Your task to perform on an android device: show emergency info Image 0: 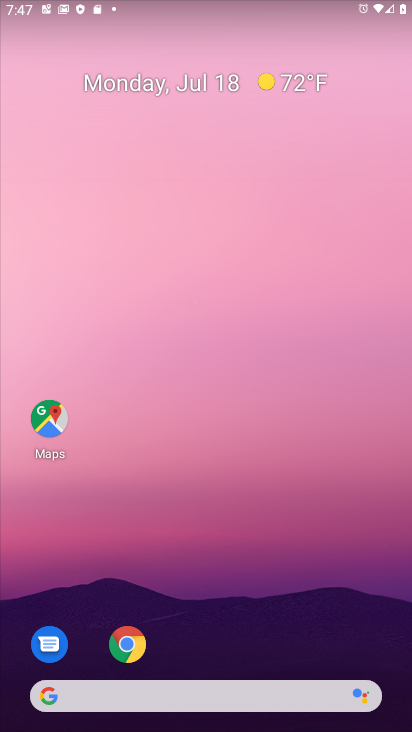
Step 0: drag from (398, 640) to (286, 78)
Your task to perform on an android device: show emergency info Image 1: 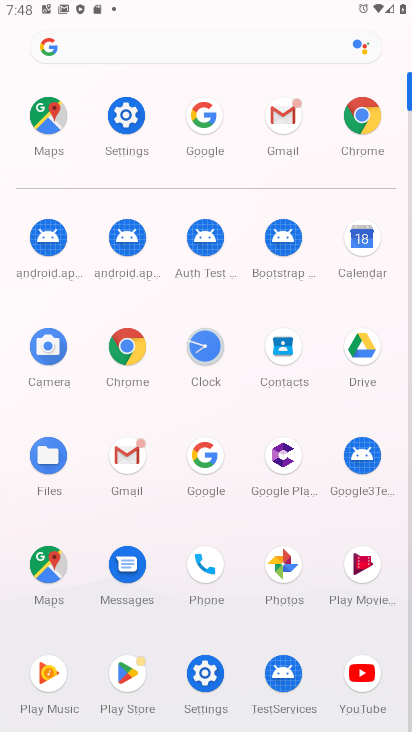
Step 1: click (206, 686)
Your task to perform on an android device: show emergency info Image 2: 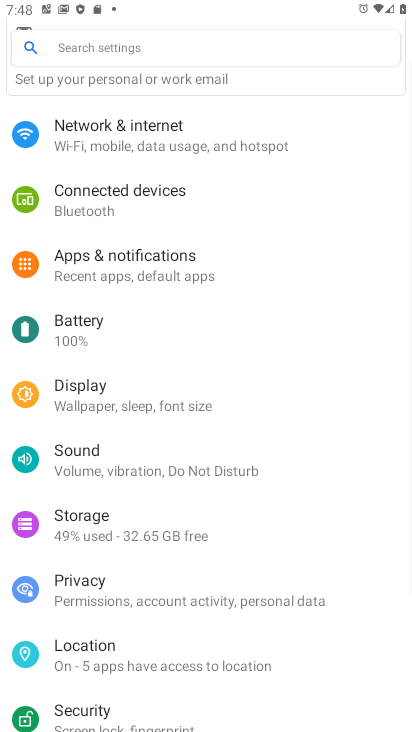
Step 2: drag from (177, 685) to (102, 51)
Your task to perform on an android device: show emergency info Image 3: 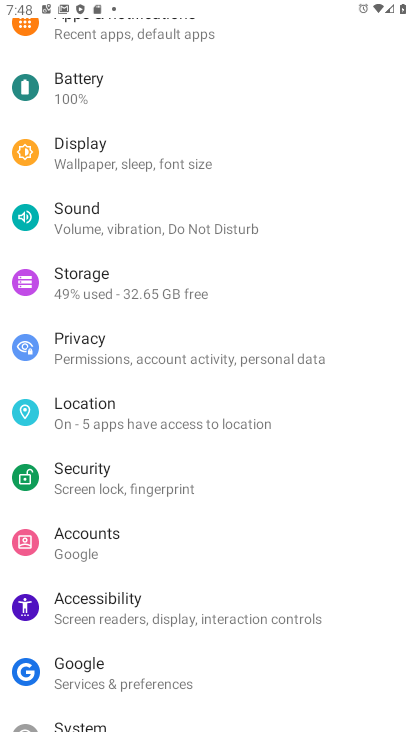
Step 3: drag from (110, 683) to (226, 15)
Your task to perform on an android device: show emergency info Image 4: 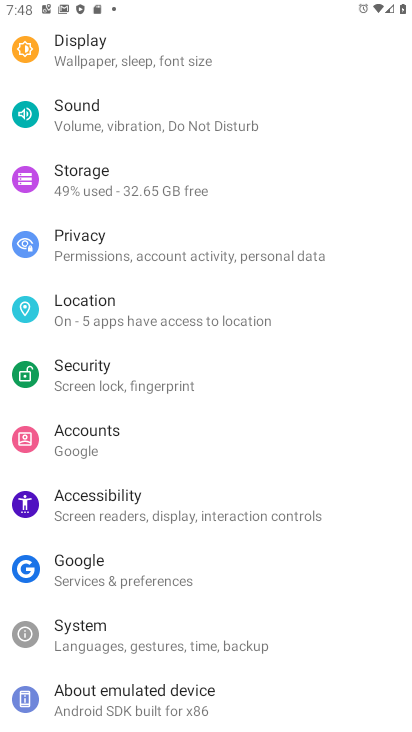
Step 4: click (167, 698)
Your task to perform on an android device: show emergency info Image 5: 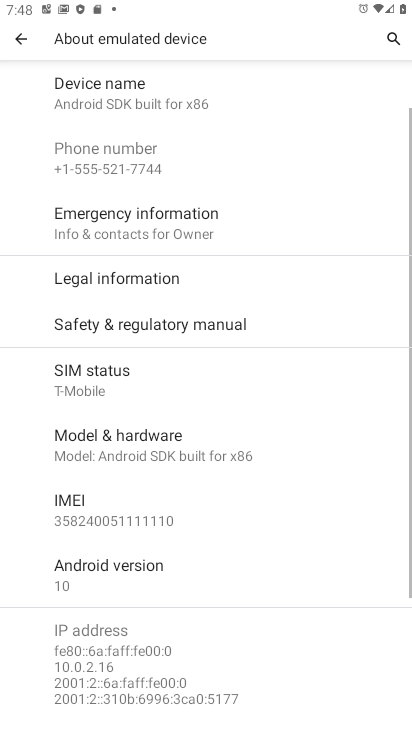
Step 5: click (106, 233)
Your task to perform on an android device: show emergency info Image 6: 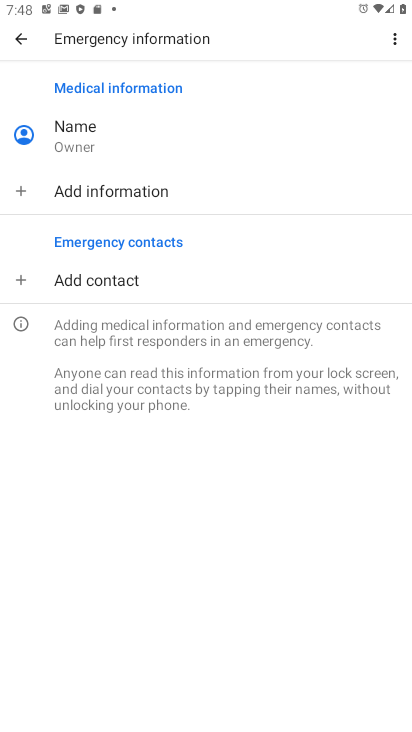
Step 6: task complete